Your task to perform on an android device: Show me popular games on the Play Store Image 0: 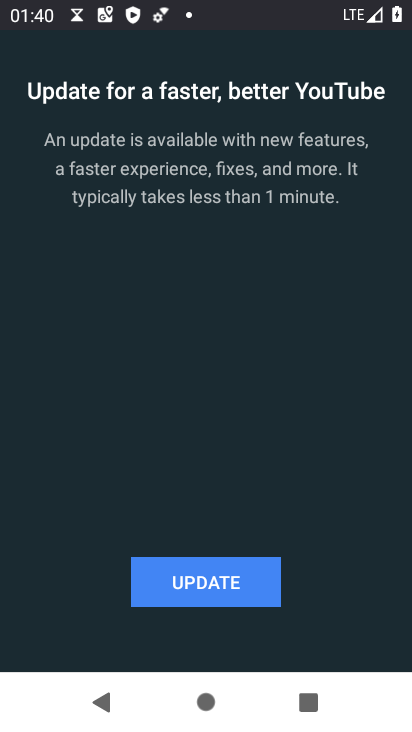
Step 0: press home button
Your task to perform on an android device: Show me popular games on the Play Store Image 1: 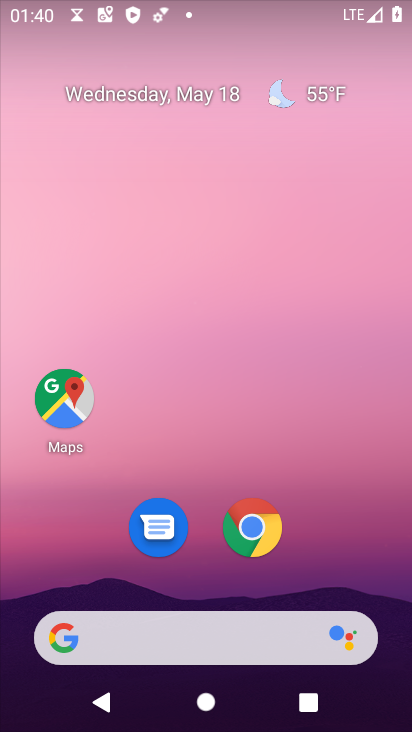
Step 1: drag from (333, 575) to (200, 41)
Your task to perform on an android device: Show me popular games on the Play Store Image 2: 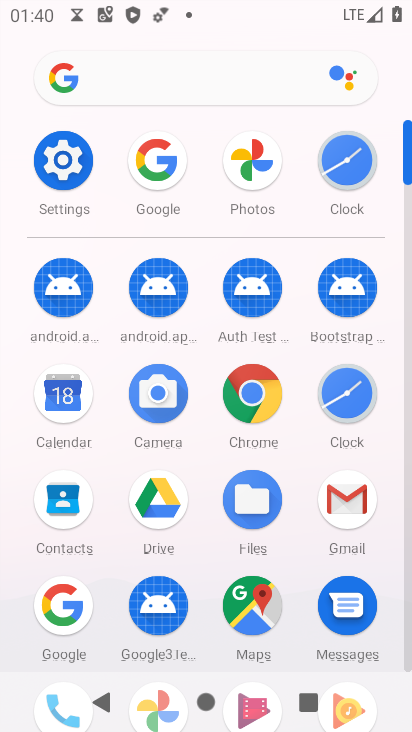
Step 2: drag from (296, 650) to (227, 208)
Your task to perform on an android device: Show me popular games on the Play Store Image 3: 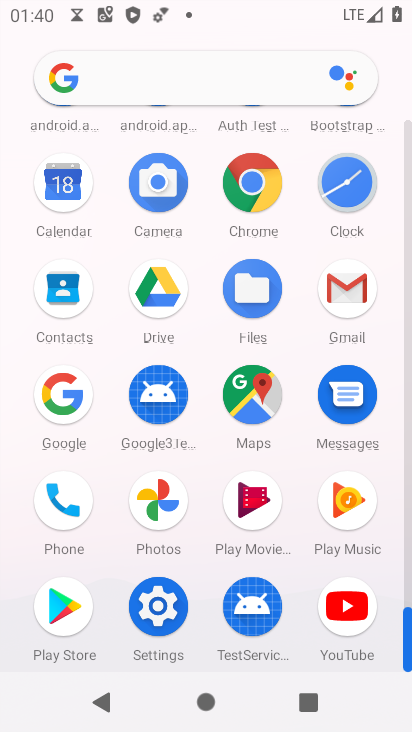
Step 3: click (65, 603)
Your task to perform on an android device: Show me popular games on the Play Store Image 4: 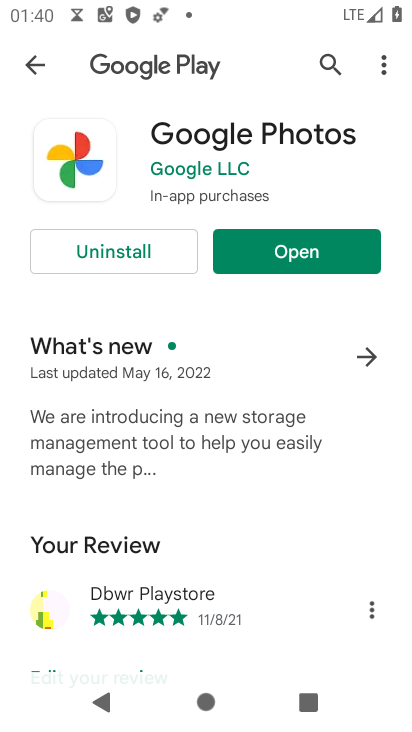
Step 4: click (32, 59)
Your task to perform on an android device: Show me popular games on the Play Store Image 5: 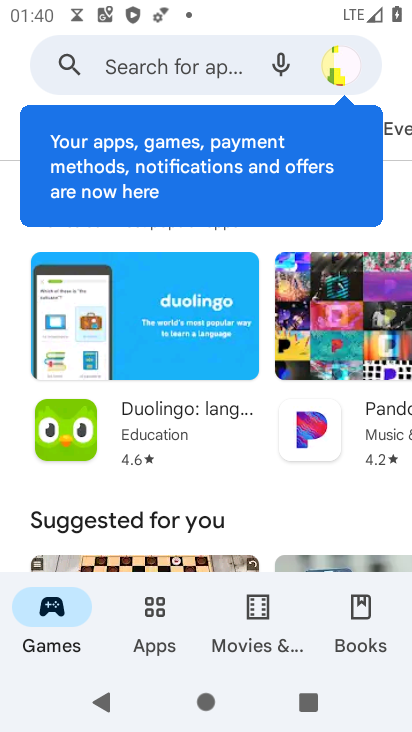
Step 5: click (162, 612)
Your task to perform on an android device: Show me popular games on the Play Store Image 6: 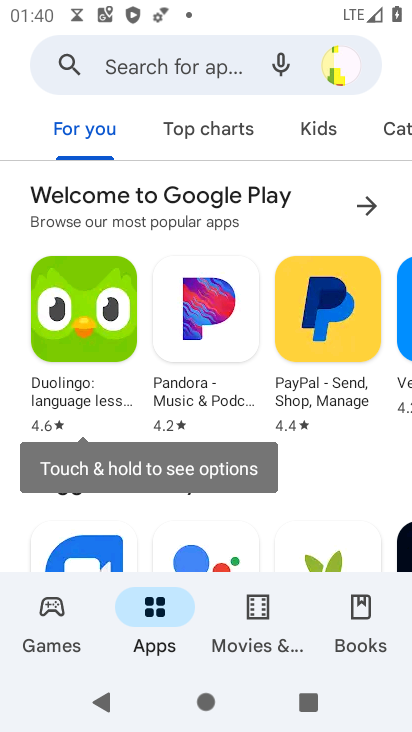
Step 6: click (42, 611)
Your task to perform on an android device: Show me popular games on the Play Store Image 7: 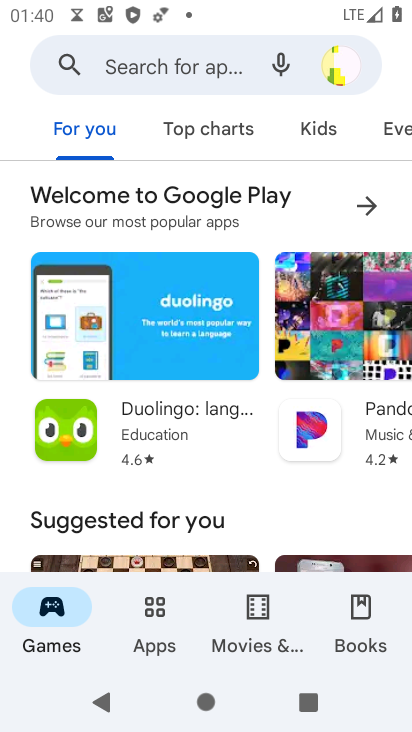
Step 7: click (167, 138)
Your task to perform on an android device: Show me popular games on the Play Store Image 8: 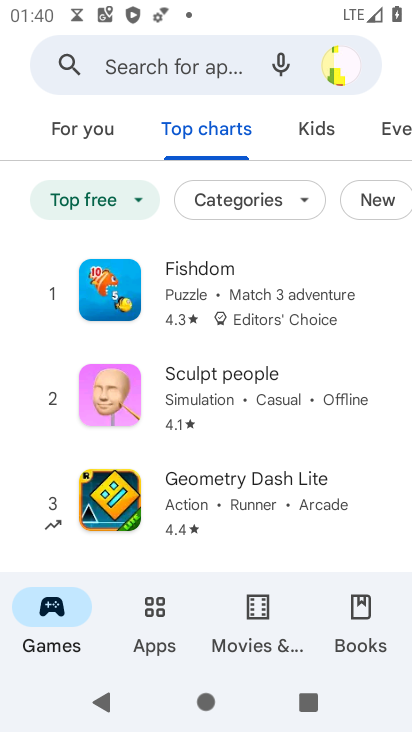
Step 8: task complete